Your task to perform on an android device: toggle notifications settings in the gmail app Image 0: 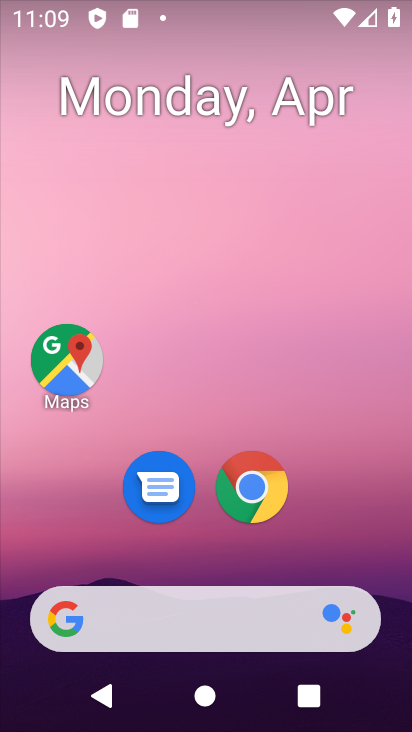
Step 0: drag from (394, 548) to (301, 105)
Your task to perform on an android device: toggle notifications settings in the gmail app Image 1: 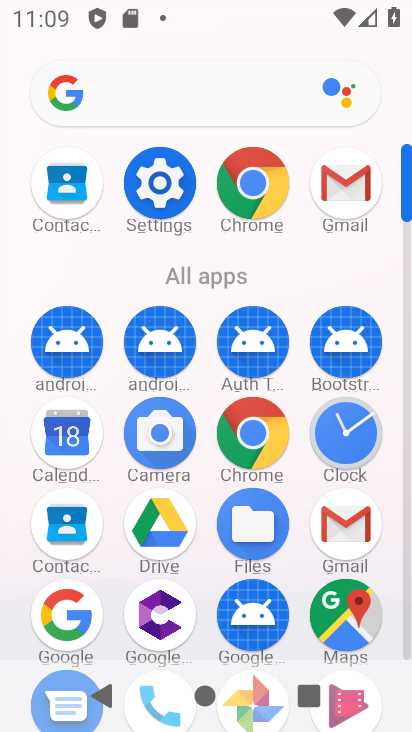
Step 1: click (363, 209)
Your task to perform on an android device: toggle notifications settings in the gmail app Image 2: 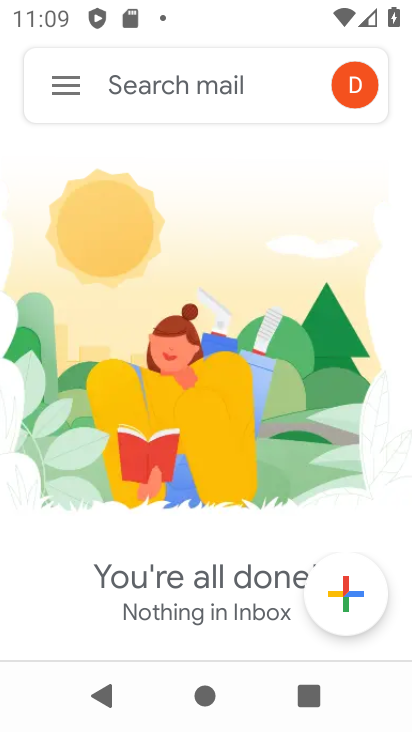
Step 2: click (60, 92)
Your task to perform on an android device: toggle notifications settings in the gmail app Image 3: 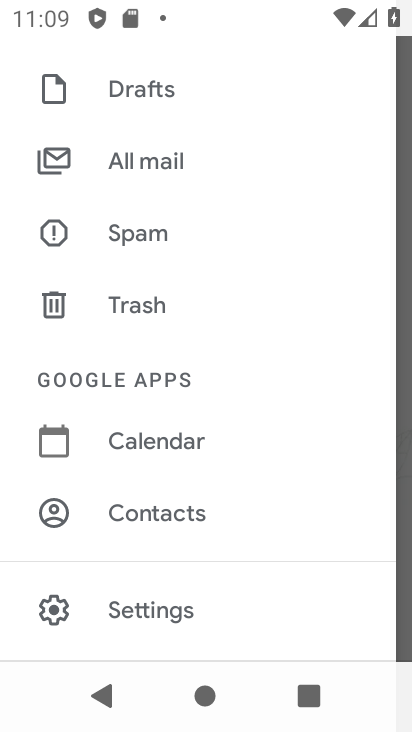
Step 3: click (260, 605)
Your task to perform on an android device: toggle notifications settings in the gmail app Image 4: 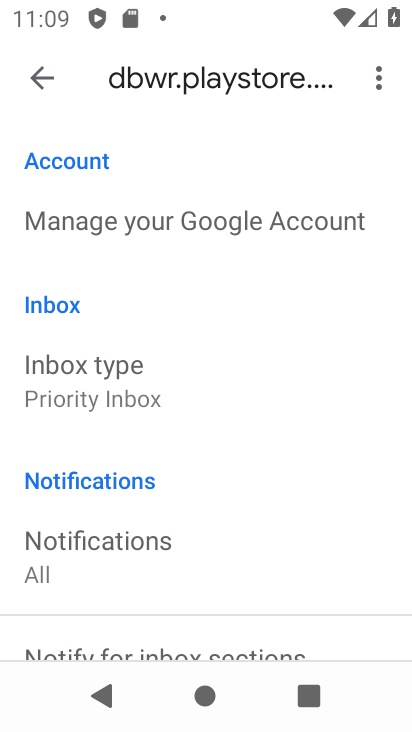
Step 4: drag from (260, 605) to (209, 195)
Your task to perform on an android device: toggle notifications settings in the gmail app Image 5: 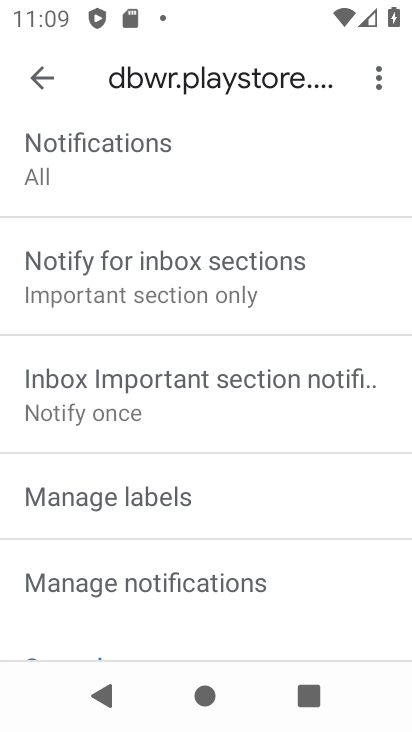
Step 5: click (231, 585)
Your task to perform on an android device: toggle notifications settings in the gmail app Image 6: 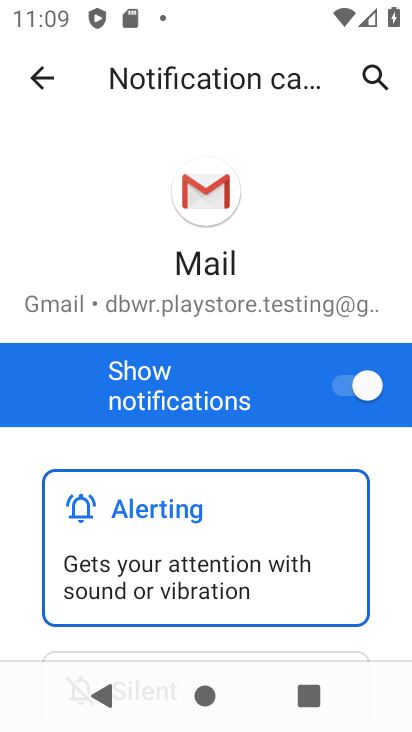
Step 6: drag from (399, 606) to (334, 271)
Your task to perform on an android device: toggle notifications settings in the gmail app Image 7: 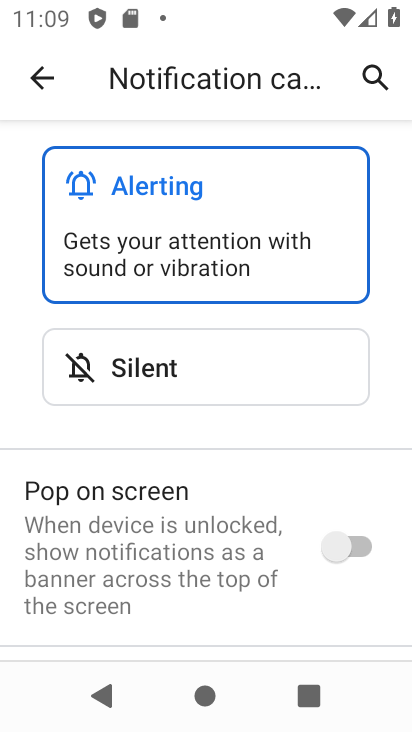
Step 7: click (327, 344)
Your task to perform on an android device: toggle notifications settings in the gmail app Image 8: 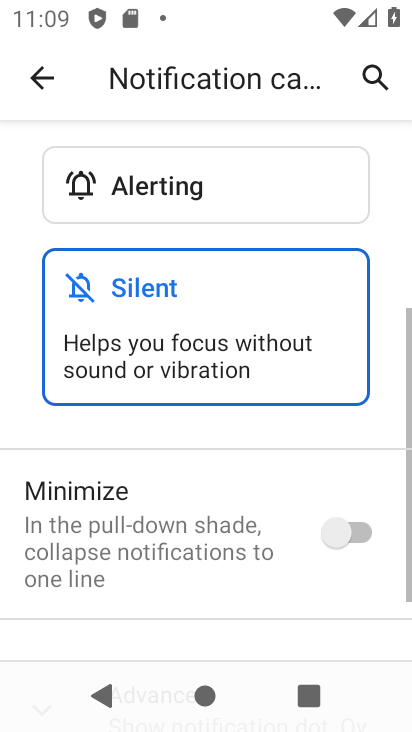
Step 8: click (365, 552)
Your task to perform on an android device: toggle notifications settings in the gmail app Image 9: 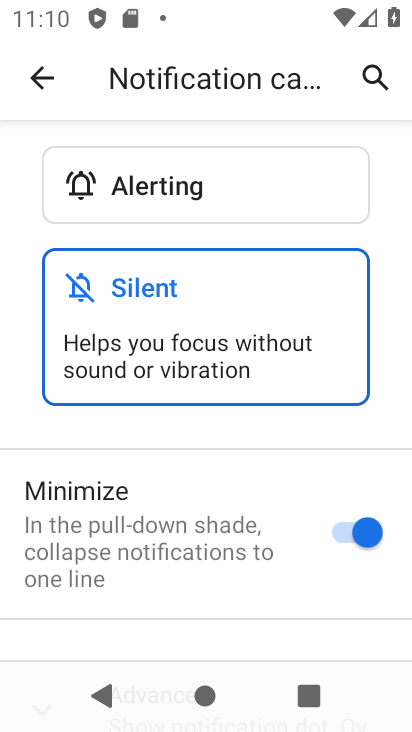
Step 9: task complete